Your task to perform on an android device: Go to Yahoo.com Image 0: 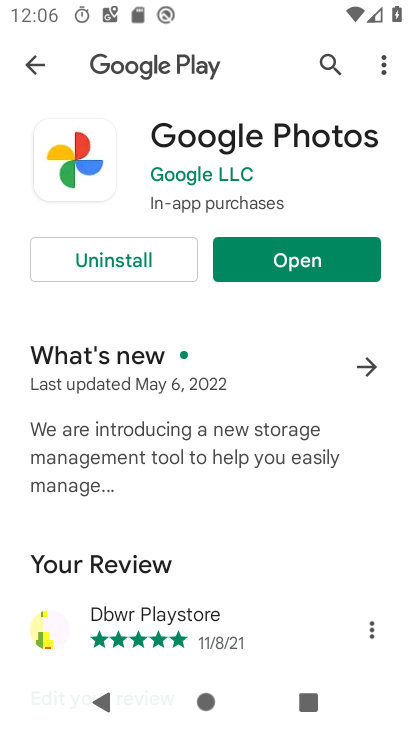
Step 0: press home button
Your task to perform on an android device: Go to Yahoo.com Image 1: 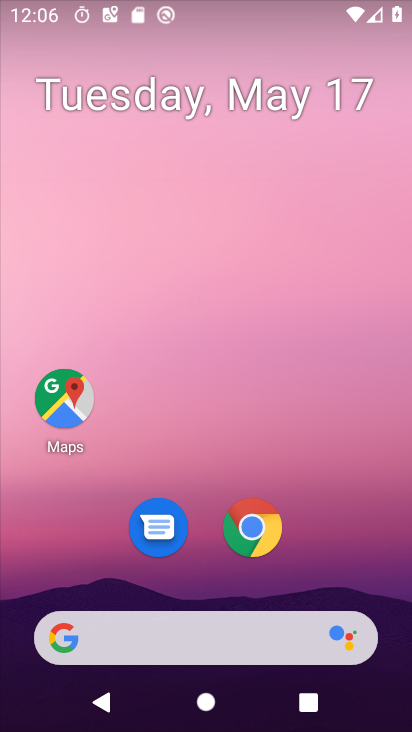
Step 1: click (249, 544)
Your task to perform on an android device: Go to Yahoo.com Image 2: 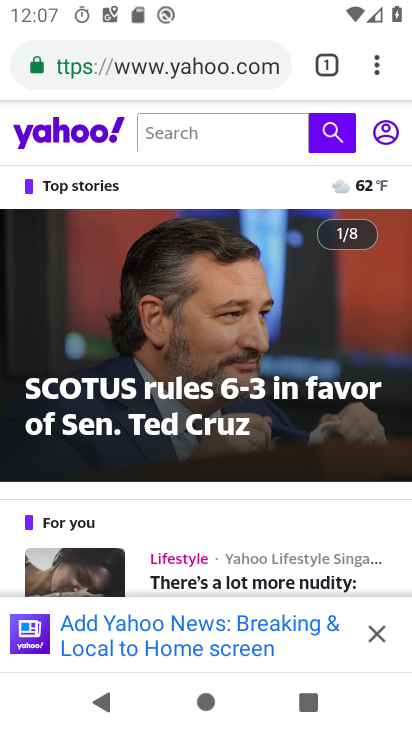
Step 2: task complete